Your task to perform on an android device: Clear the shopping cart on walmart.com. Image 0: 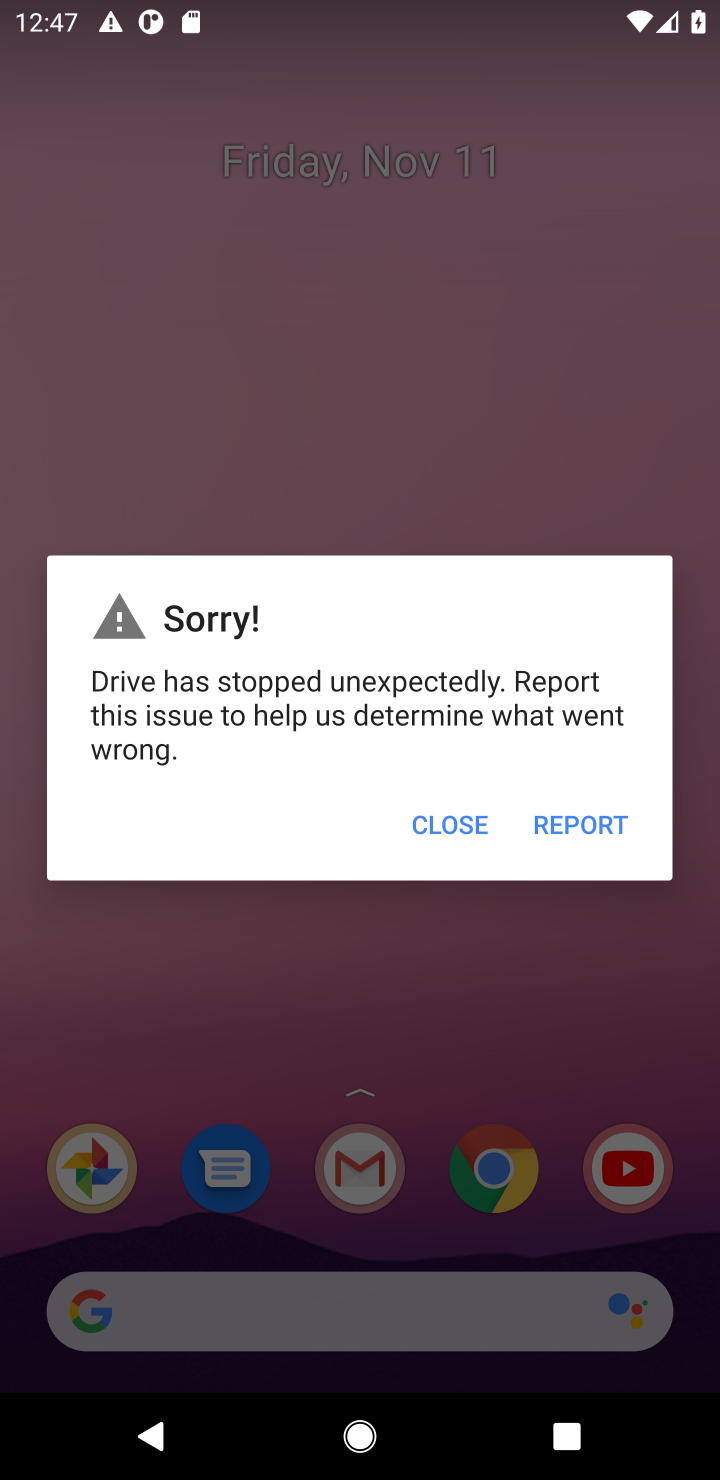
Step 0: press home button
Your task to perform on an android device: Clear the shopping cart on walmart.com. Image 1: 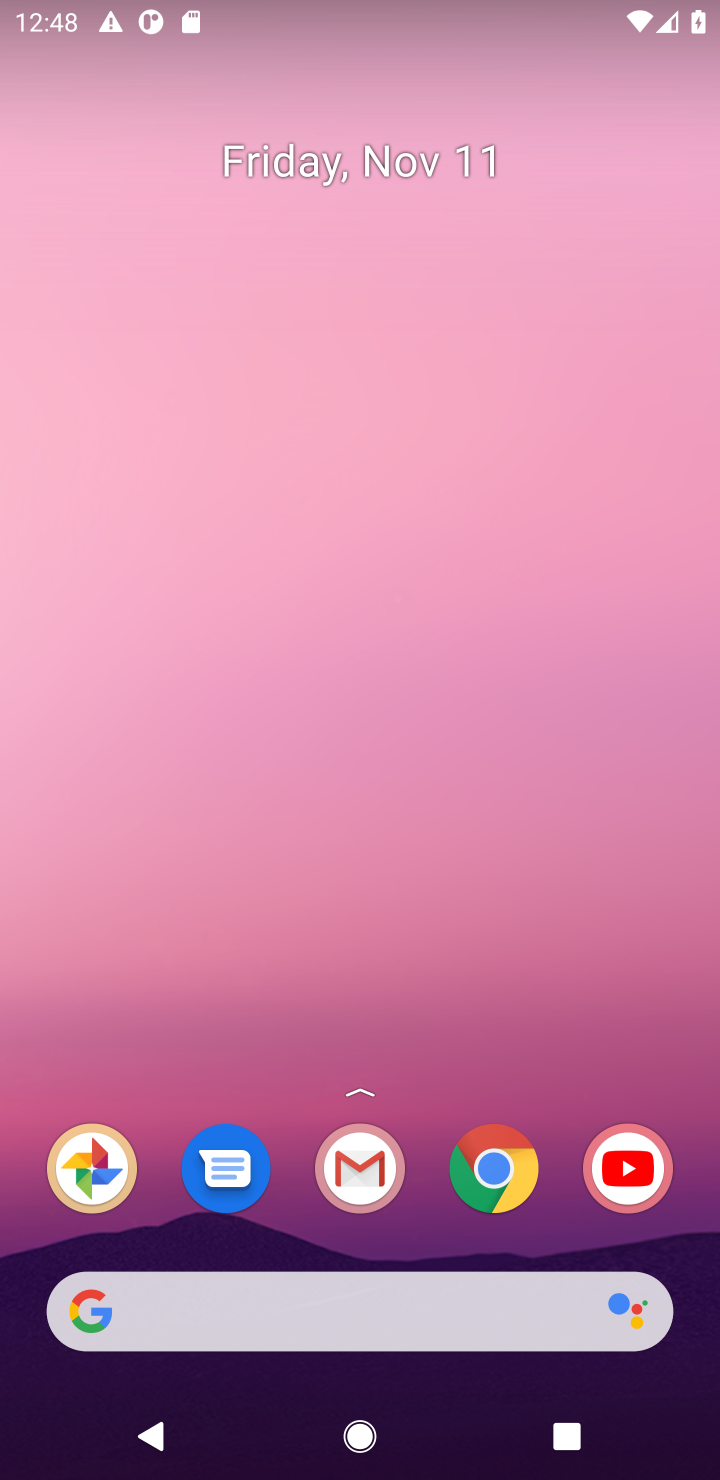
Step 1: click (499, 1175)
Your task to perform on an android device: Clear the shopping cart on walmart.com. Image 2: 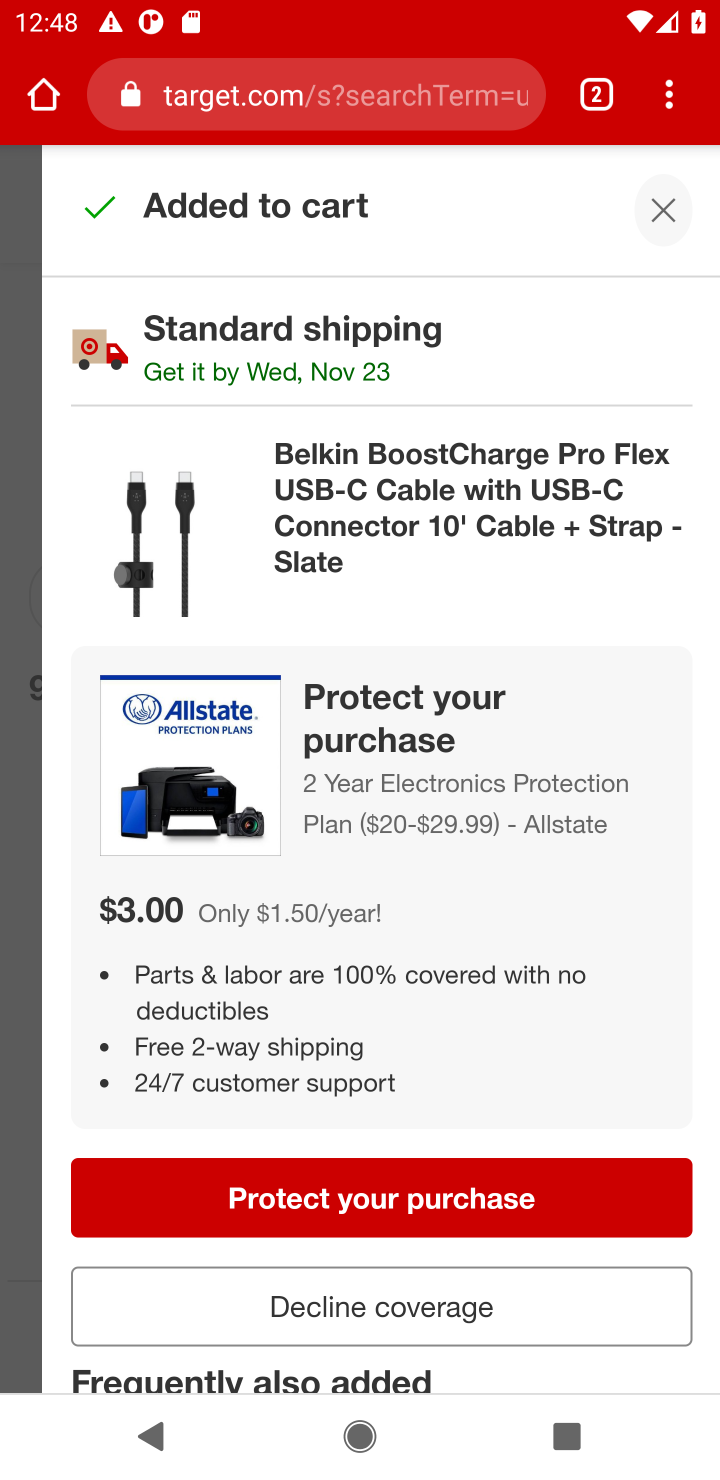
Step 2: click (346, 111)
Your task to perform on an android device: Clear the shopping cart on walmart.com. Image 3: 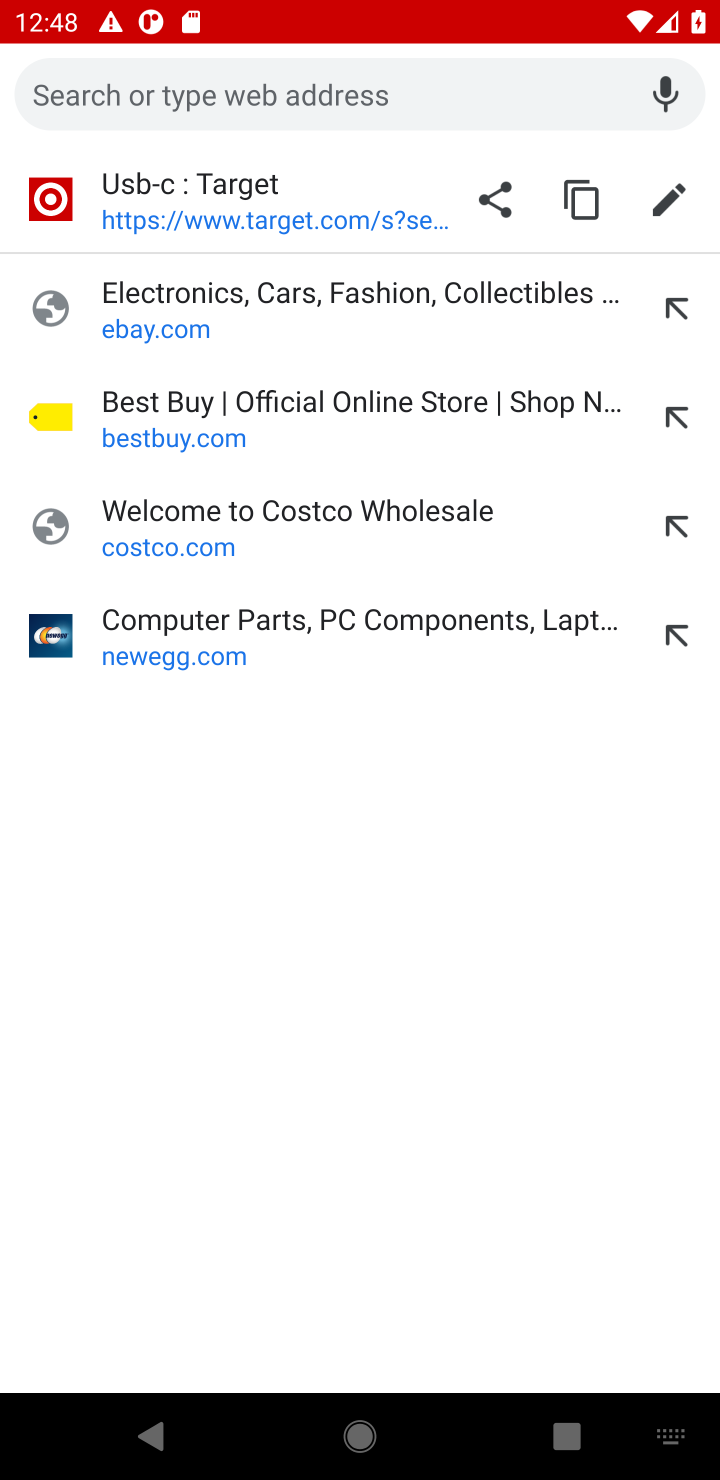
Step 3: type "walmart.com"
Your task to perform on an android device: Clear the shopping cart on walmart.com. Image 4: 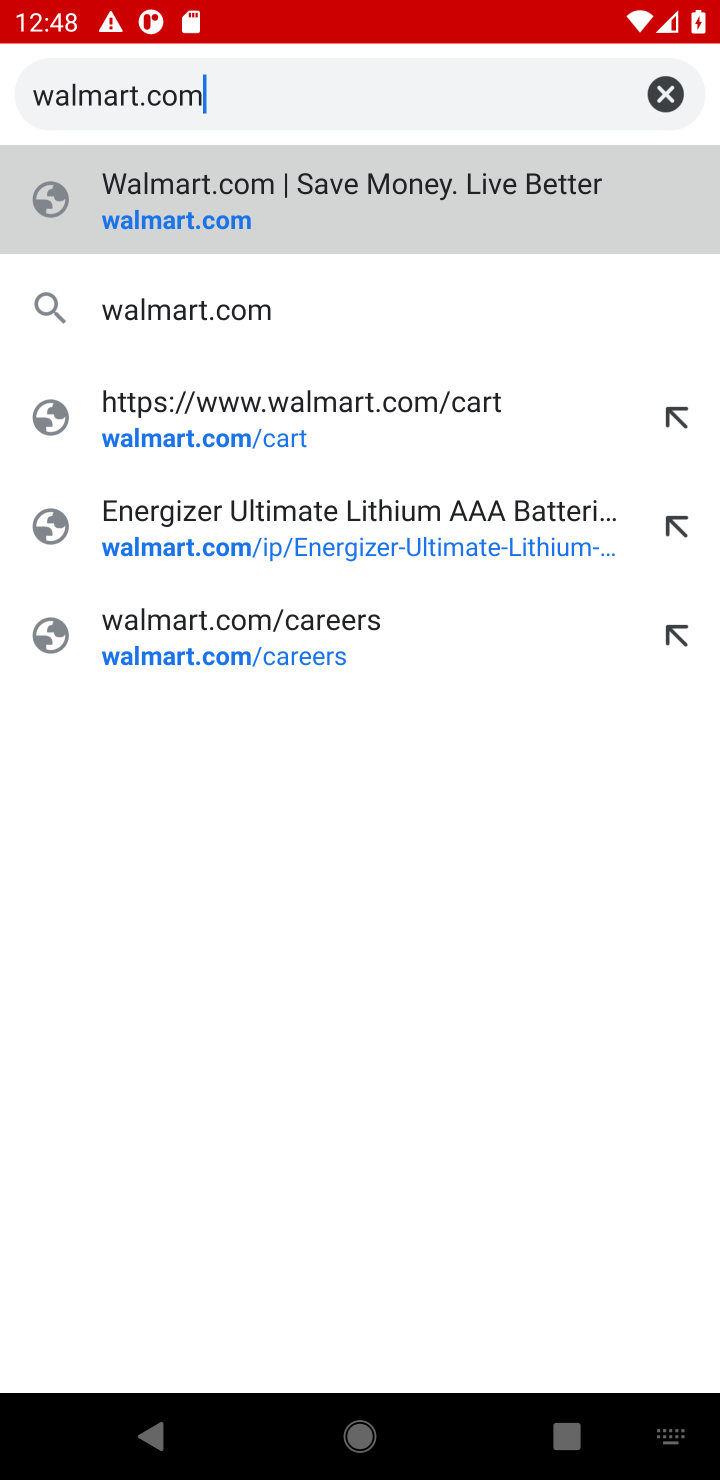
Step 4: click (194, 230)
Your task to perform on an android device: Clear the shopping cart on walmart.com. Image 5: 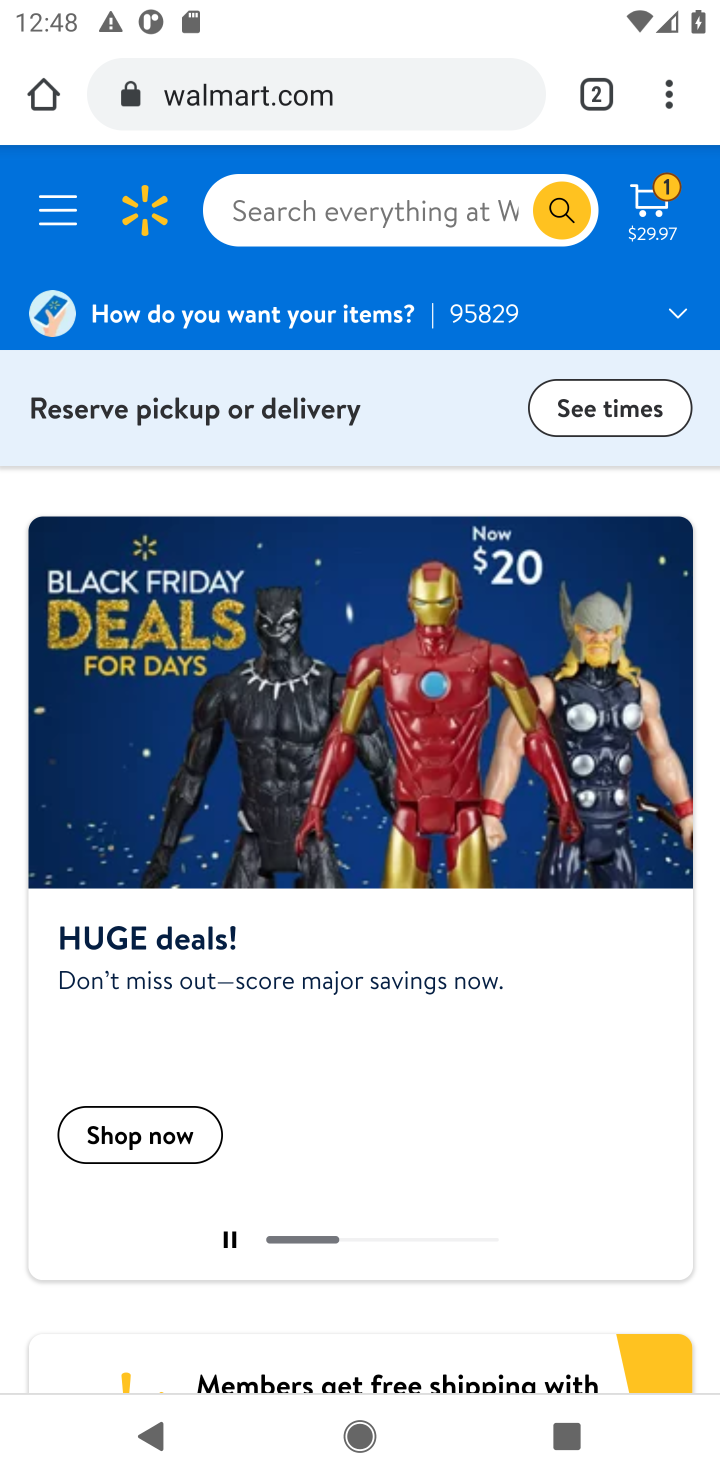
Step 5: click (644, 210)
Your task to perform on an android device: Clear the shopping cart on walmart.com. Image 6: 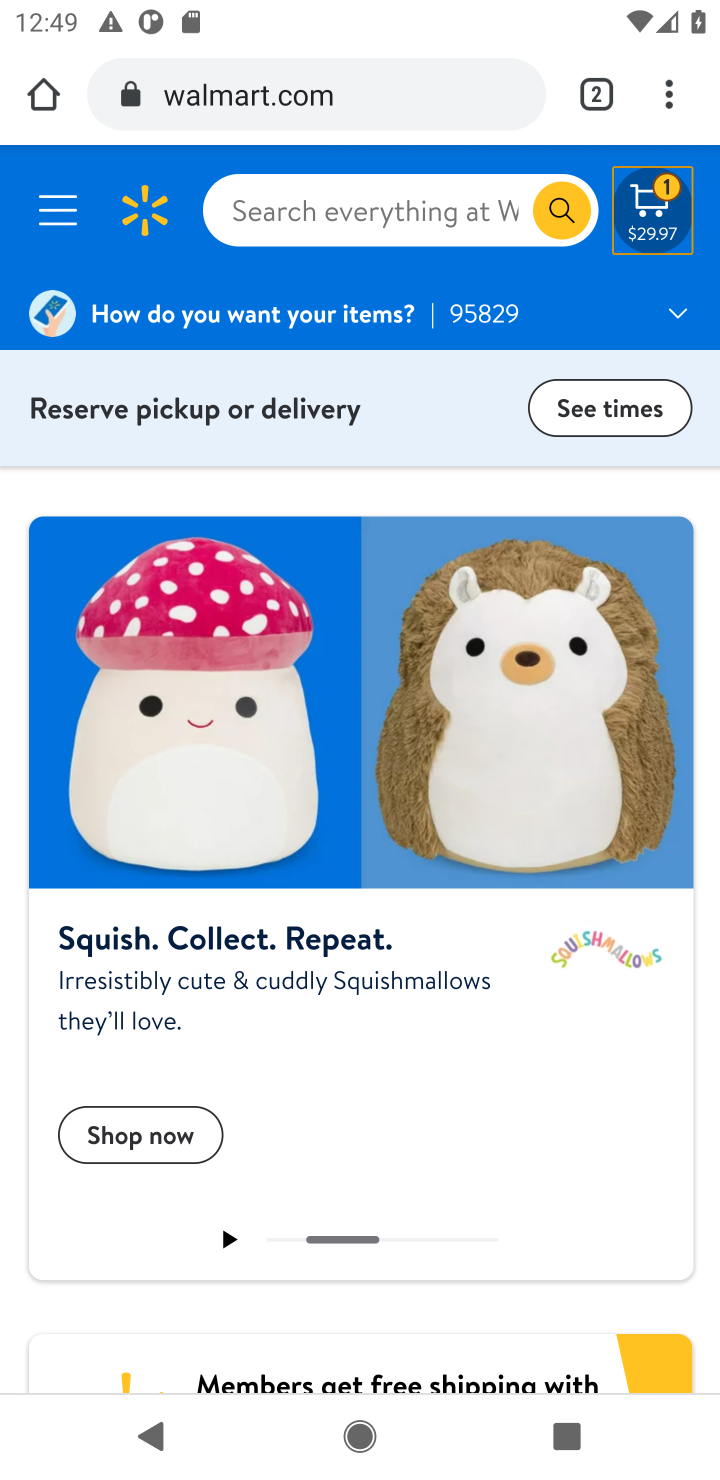
Step 6: click (662, 219)
Your task to perform on an android device: Clear the shopping cart on walmart.com. Image 7: 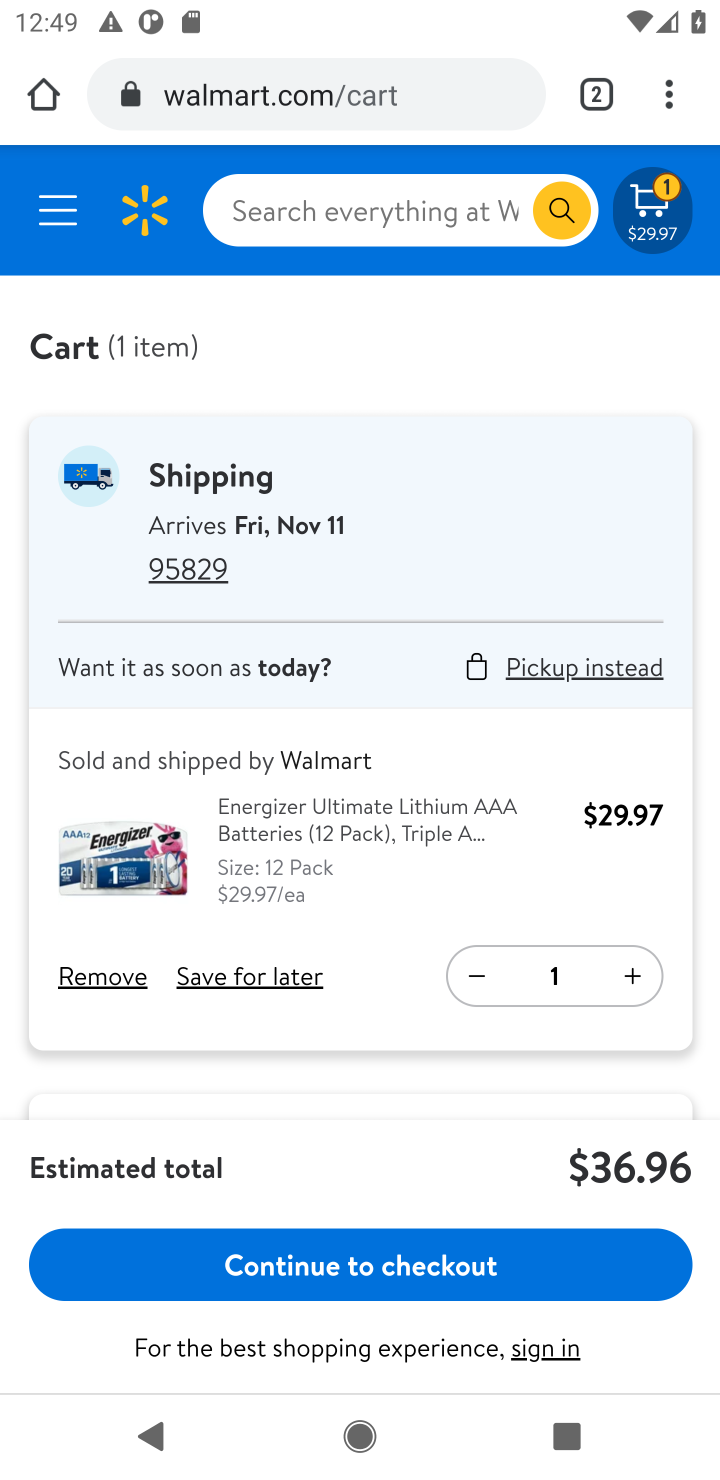
Step 7: click (102, 974)
Your task to perform on an android device: Clear the shopping cart on walmart.com. Image 8: 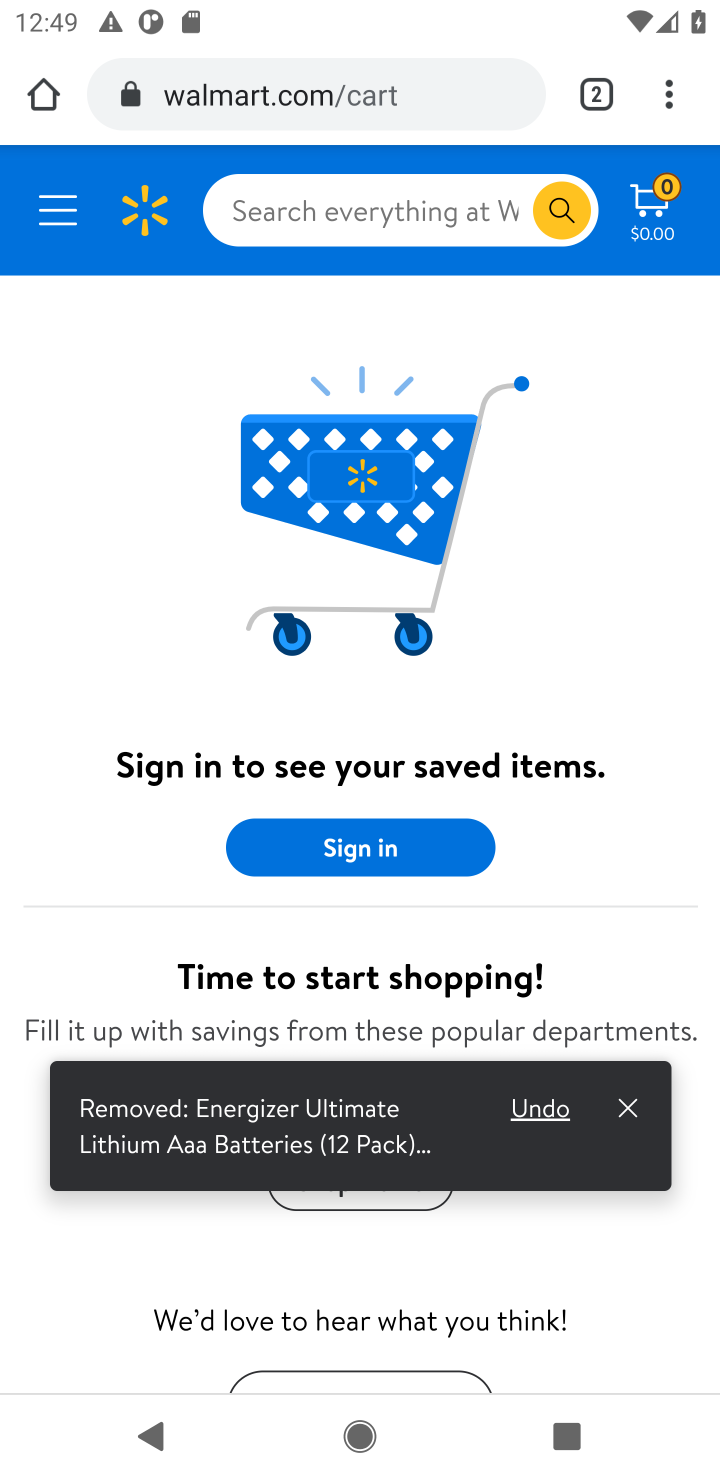
Step 8: task complete